Your task to perform on an android device: Open Chrome and go to settings Image 0: 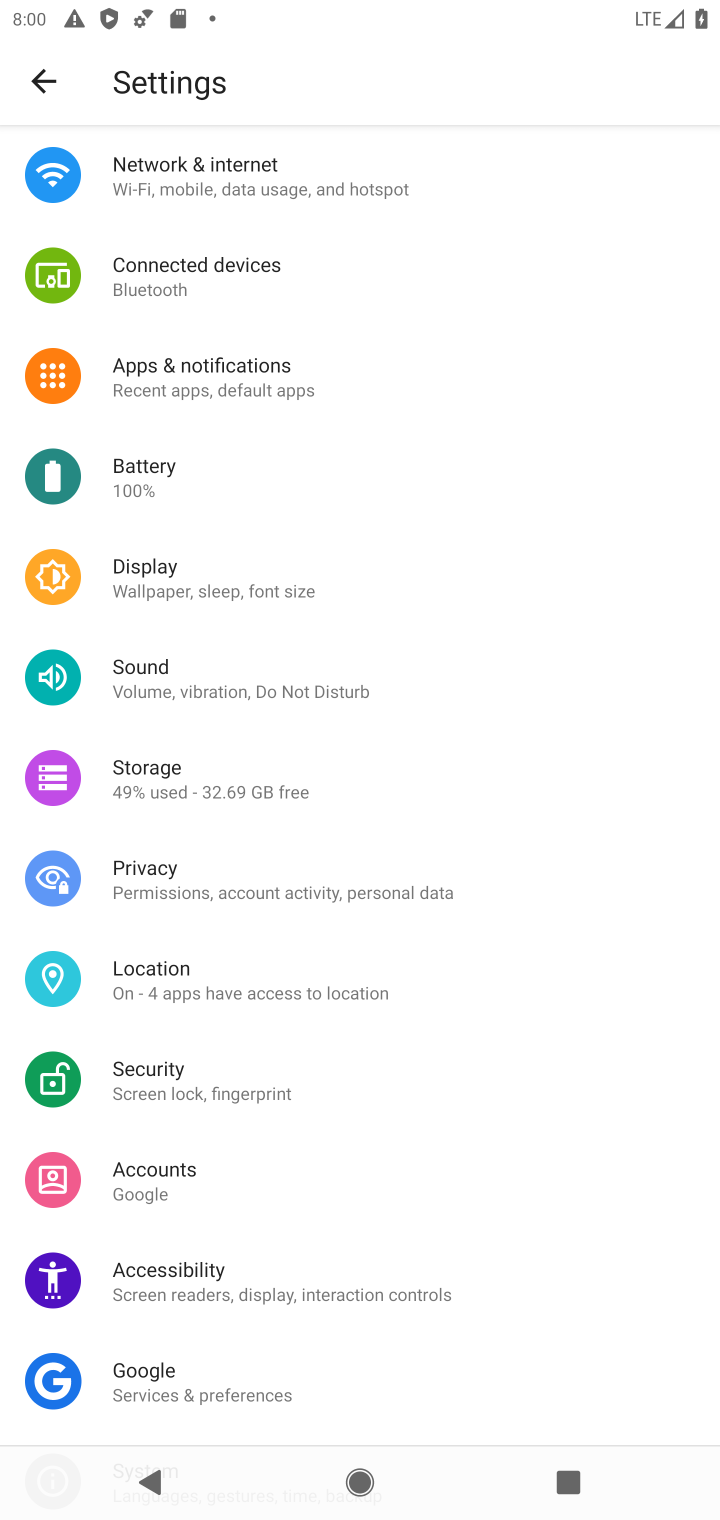
Step 0: press home button
Your task to perform on an android device: Open Chrome and go to settings Image 1: 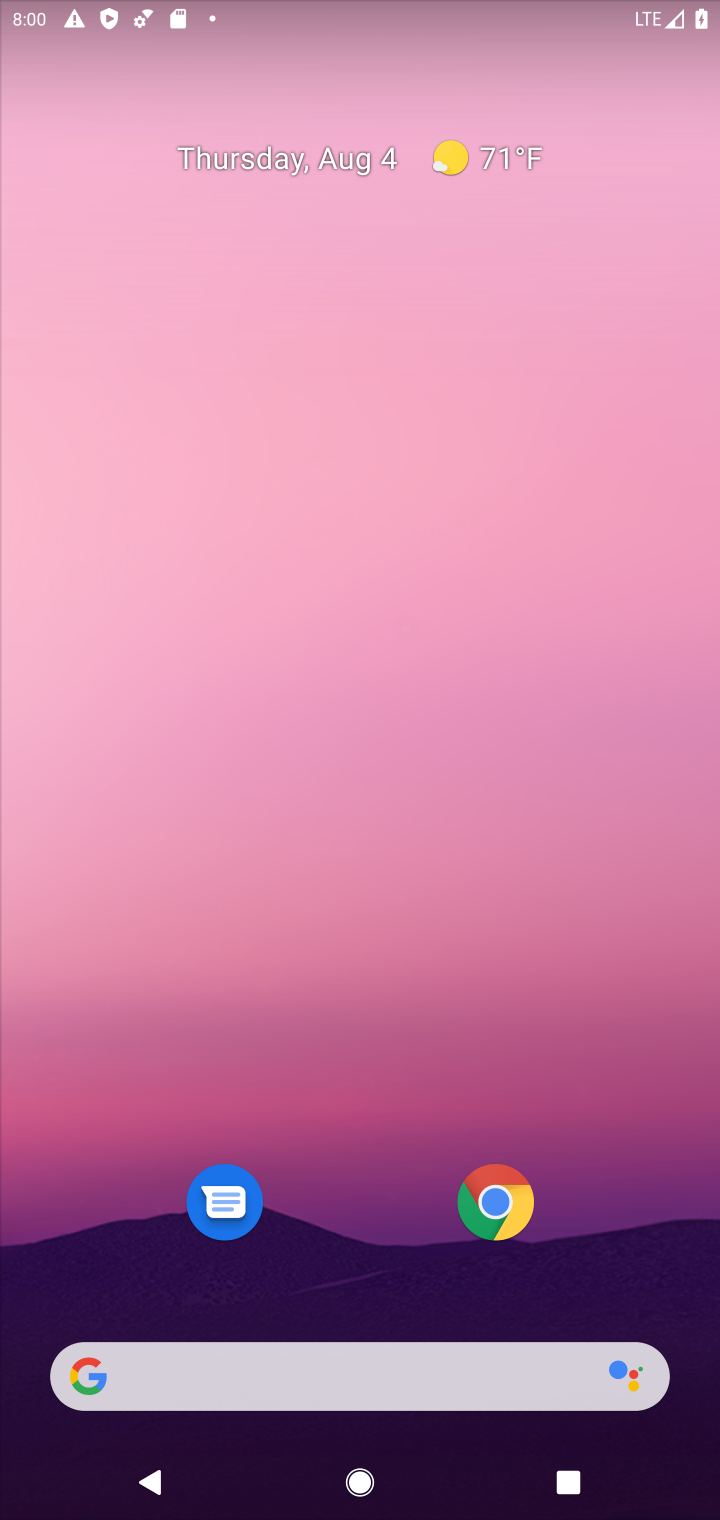
Step 1: click (473, 1199)
Your task to perform on an android device: Open Chrome and go to settings Image 2: 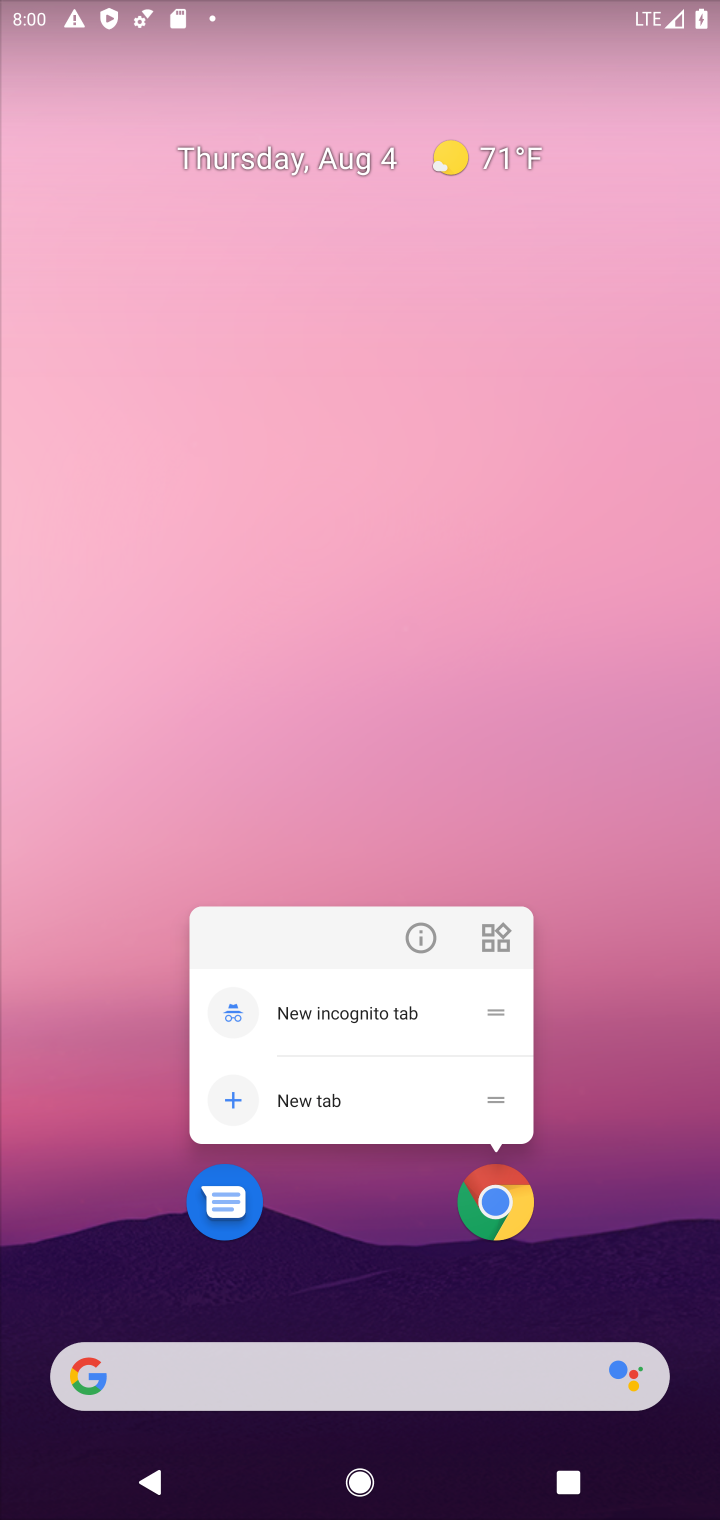
Step 2: click (451, 1212)
Your task to perform on an android device: Open Chrome and go to settings Image 3: 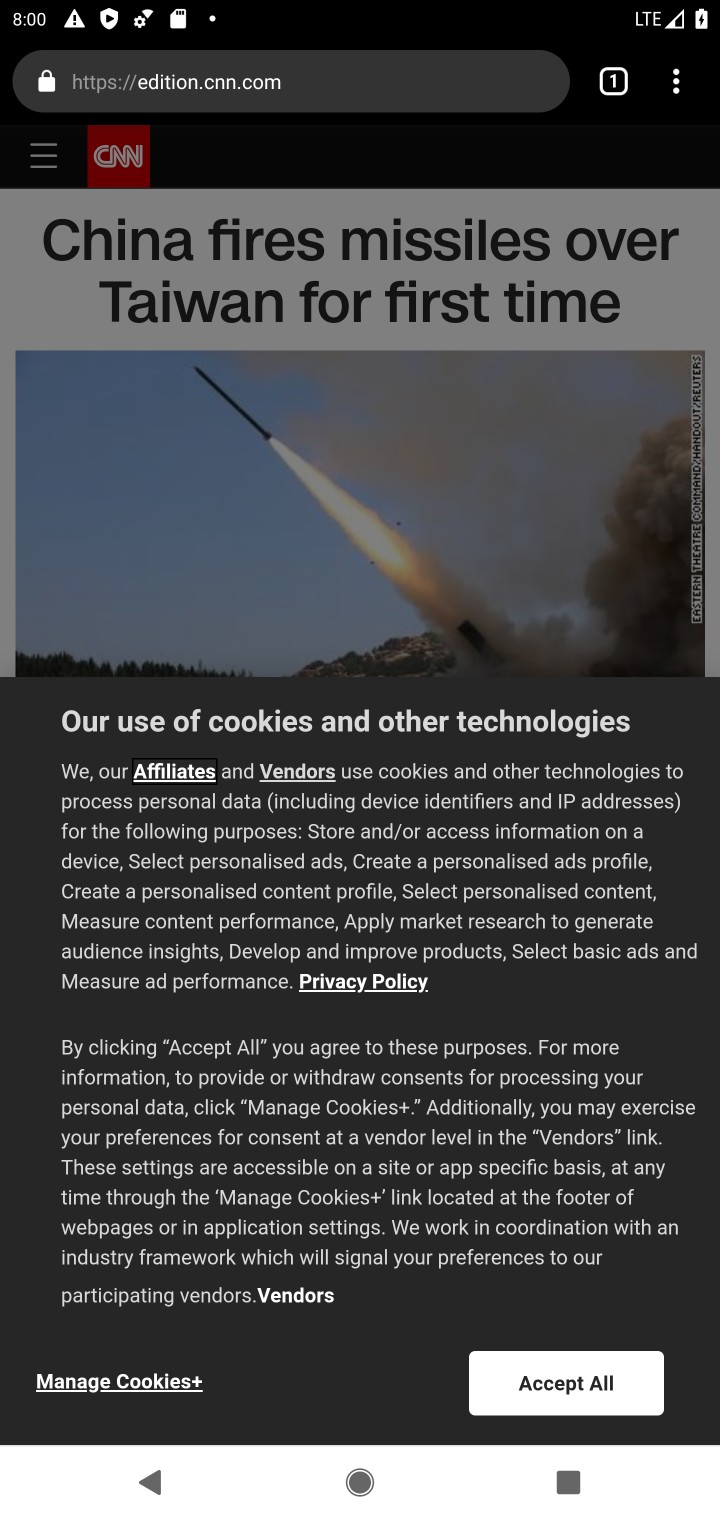
Step 3: click (669, 73)
Your task to perform on an android device: Open Chrome and go to settings Image 4: 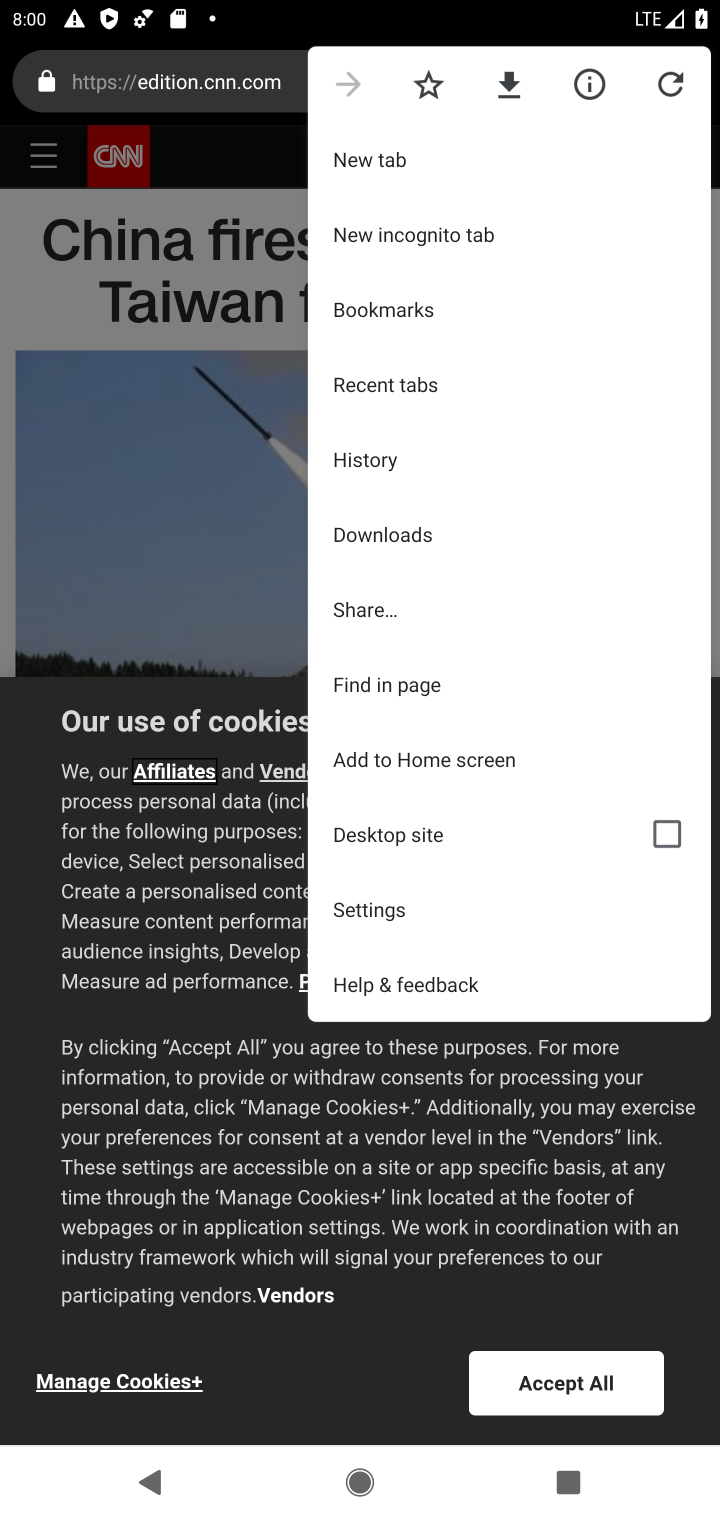
Step 4: click (419, 904)
Your task to perform on an android device: Open Chrome and go to settings Image 5: 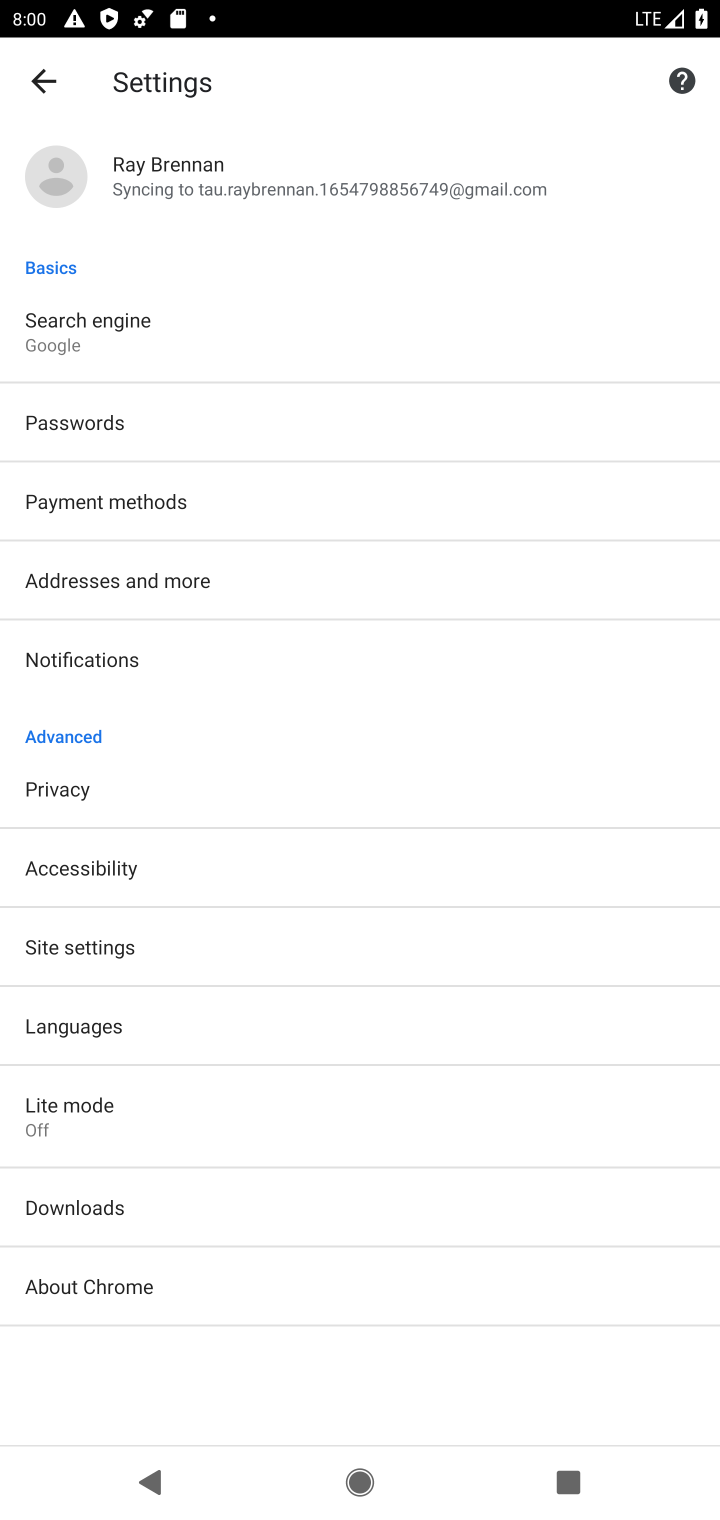
Step 5: task complete